Your task to perform on an android device: What's the weather today? Image 0: 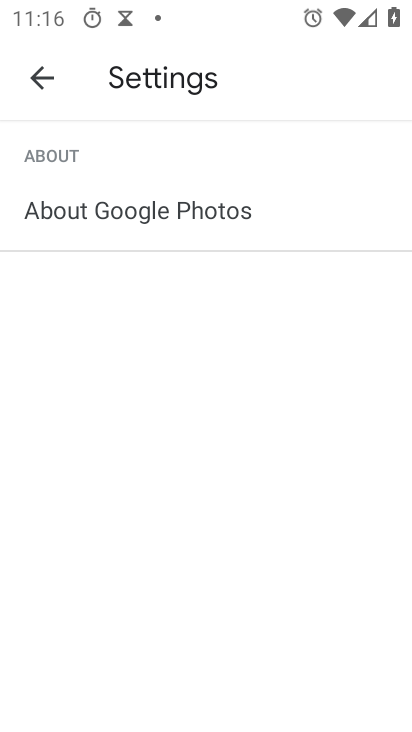
Step 0: click (41, 79)
Your task to perform on an android device: What's the weather today? Image 1: 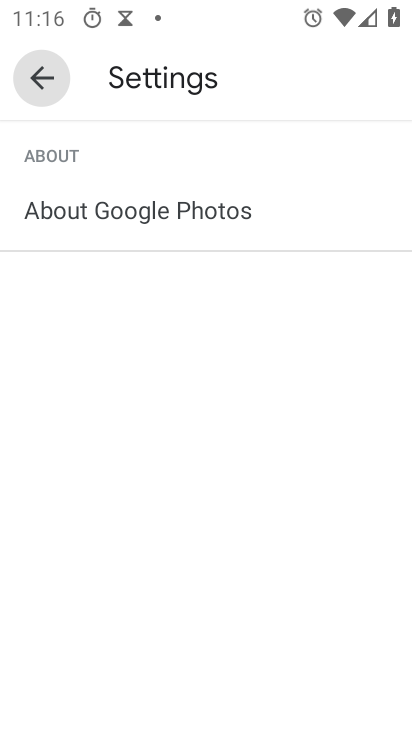
Step 1: click (40, 78)
Your task to perform on an android device: What's the weather today? Image 2: 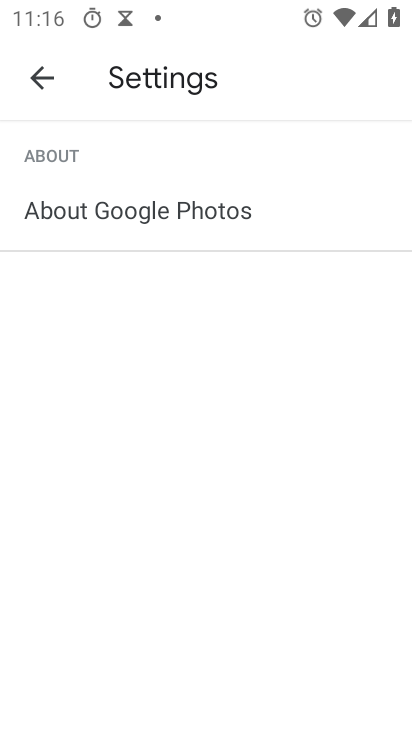
Step 2: click (44, 78)
Your task to perform on an android device: What's the weather today? Image 3: 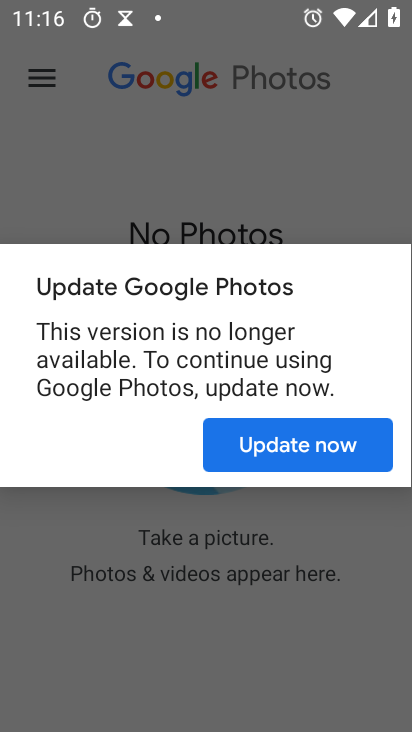
Step 3: click (47, 76)
Your task to perform on an android device: What's the weather today? Image 4: 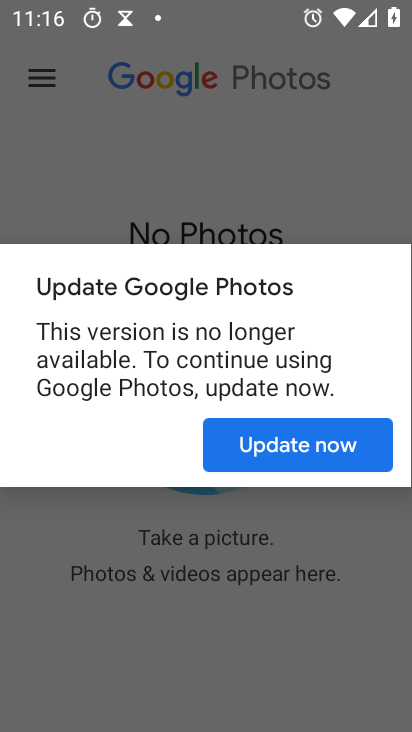
Step 4: press back button
Your task to perform on an android device: What's the weather today? Image 5: 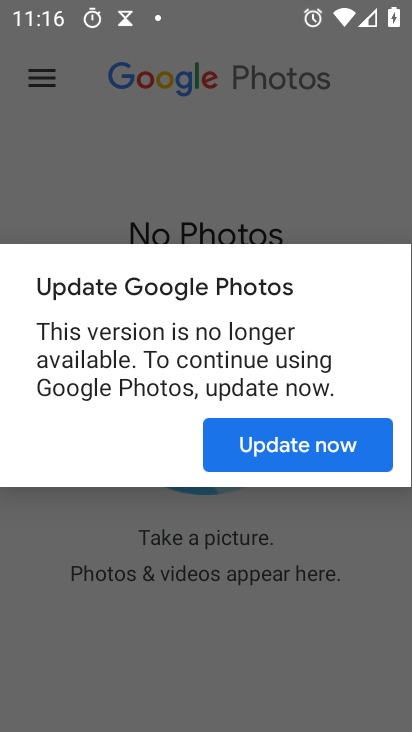
Step 5: press home button
Your task to perform on an android device: What's the weather today? Image 6: 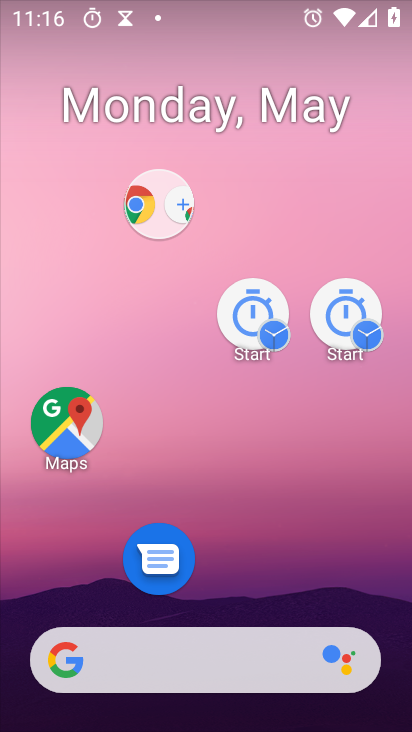
Step 6: drag from (20, 192) to (396, 344)
Your task to perform on an android device: What's the weather today? Image 7: 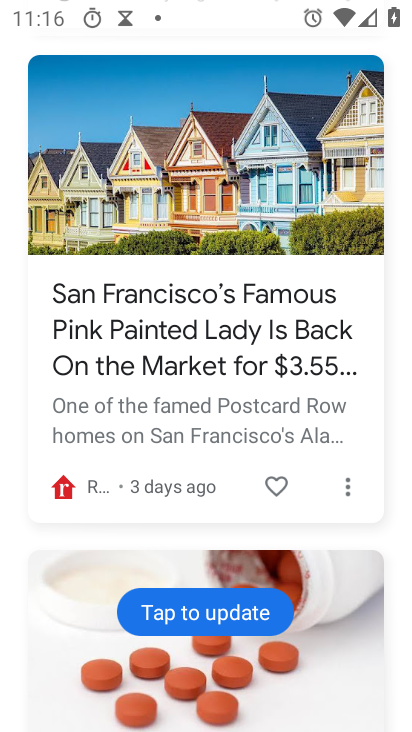
Step 7: drag from (132, 143) to (193, 448)
Your task to perform on an android device: What's the weather today? Image 8: 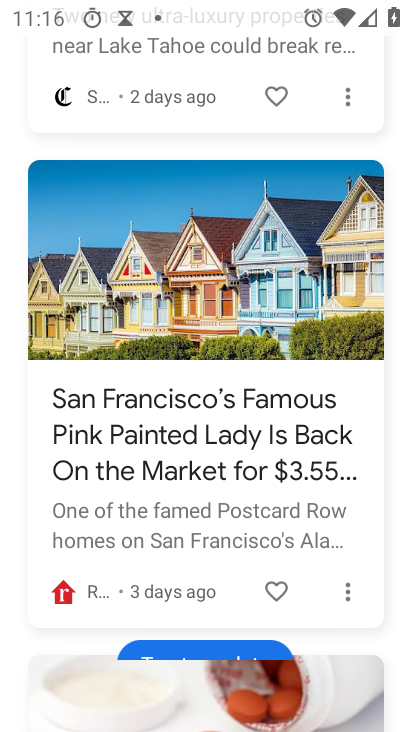
Step 8: drag from (177, 452) to (129, 560)
Your task to perform on an android device: What's the weather today? Image 9: 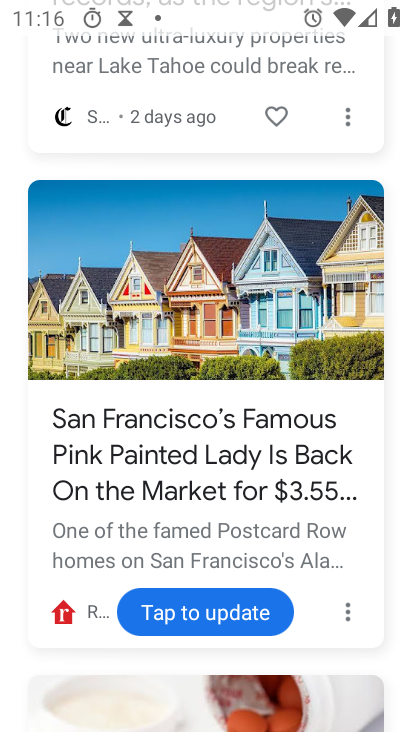
Step 9: drag from (179, 133) to (216, 461)
Your task to perform on an android device: What's the weather today? Image 10: 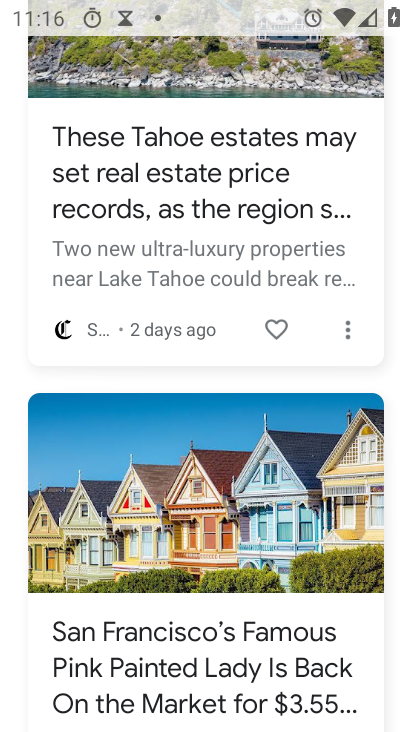
Step 10: drag from (177, 137) to (220, 441)
Your task to perform on an android device: What's the weather today? Image 11: 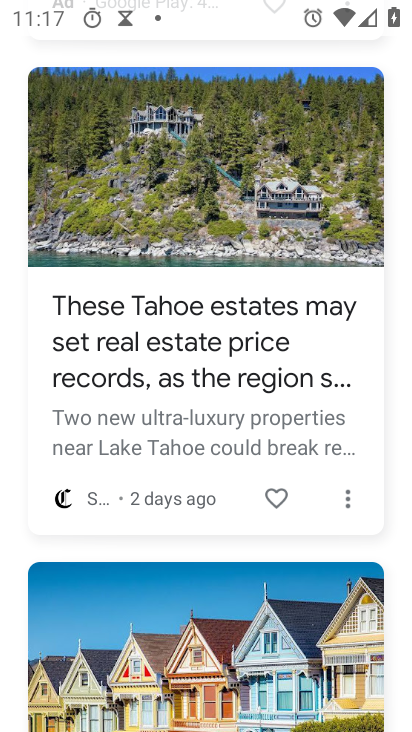
Step 11: drag from (253, 499) to (190, 536)
Your task to perform on an android device: What's the weather today? Image 12: 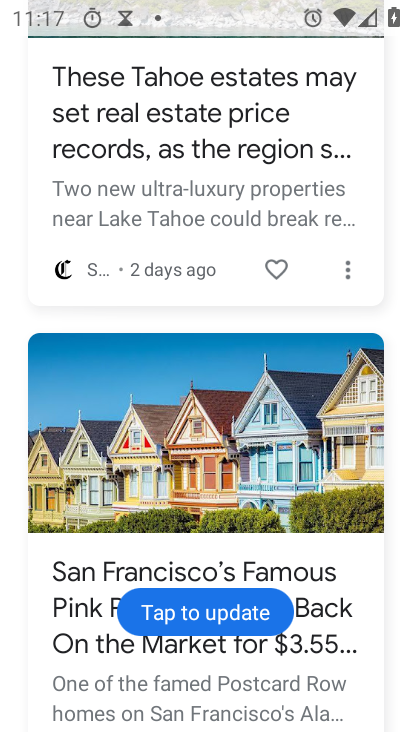
Step 12: drag from (138, 196) to (257, 553)
Your task to perform on an android device: What's the weather today? Image 13: 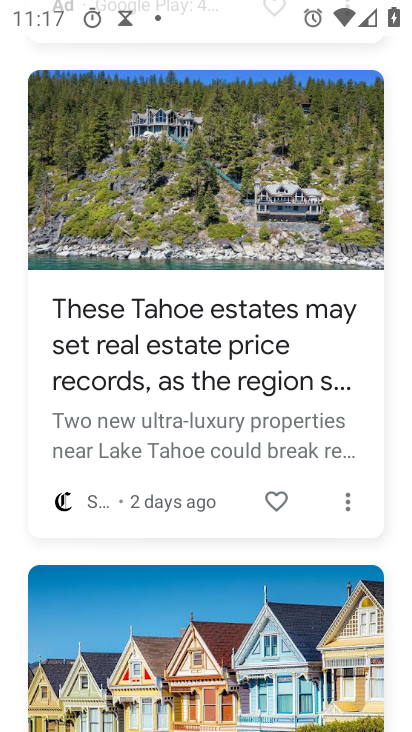
Step 13: drag from (203, 235) to (249, 518)
Your task to perform on an android device: What's the weather today? Image 14: 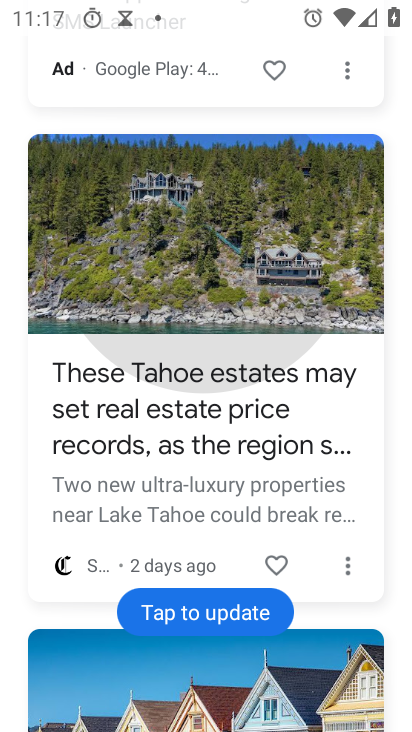
Step 14: drag from (168, 134) to (226, 474)
Your task to perform on an android device: What's the weather today? Image 15: 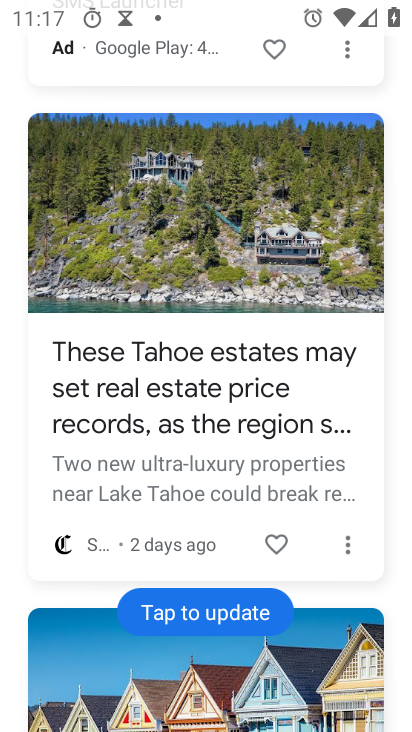
Step 15: drag from (167, 166) to (201, 398)
Your task to perform on an android device: What's the weather today? Image 16: 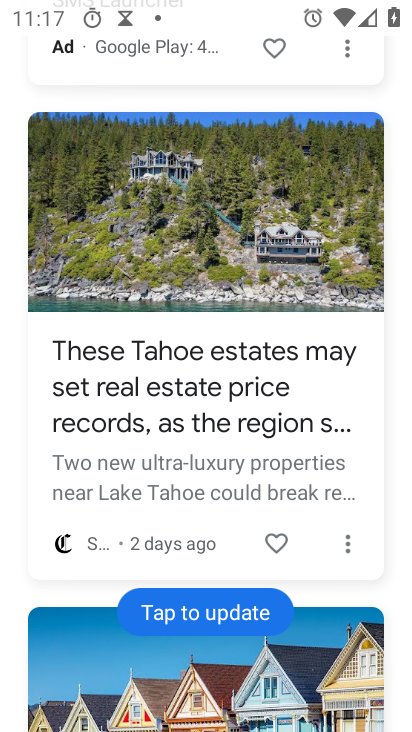
Step 16: click (171, 54)
Your task to perform on an android device: What's the weather today? Image 17: 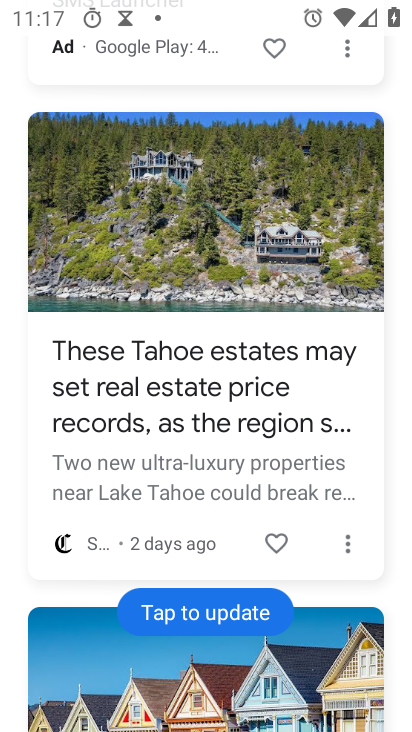
Step 17: click (173, 60)
Your task to perform on an android device: What's the weather today? Image 18: 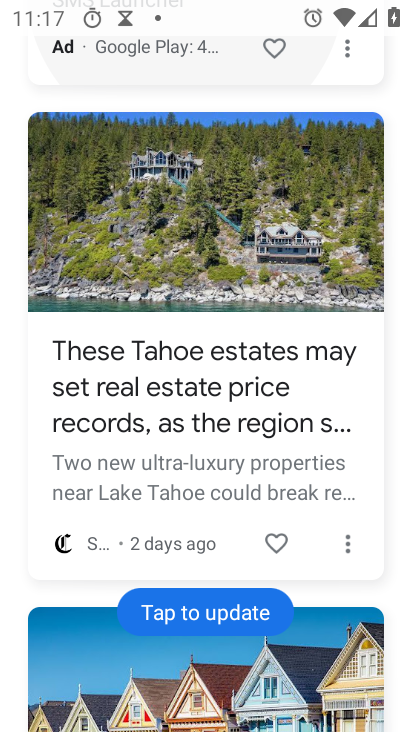
Step 18: drag from (174, 59) to (212, 25)
Your task to perform on an android device: What's the weather today? Image 19: 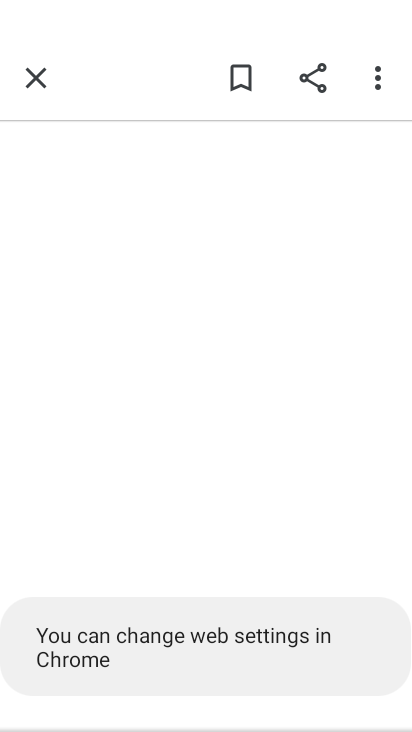
Step 19: click (211, 55)
Your task to perform on an android device: What's the weather today? Image 20: 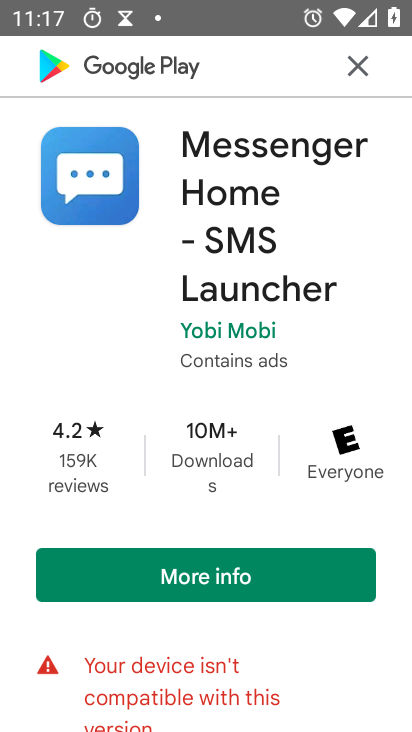
Step 20: click (353, 61)
Your task to perform on an android device: What's the weather today? Image 21: 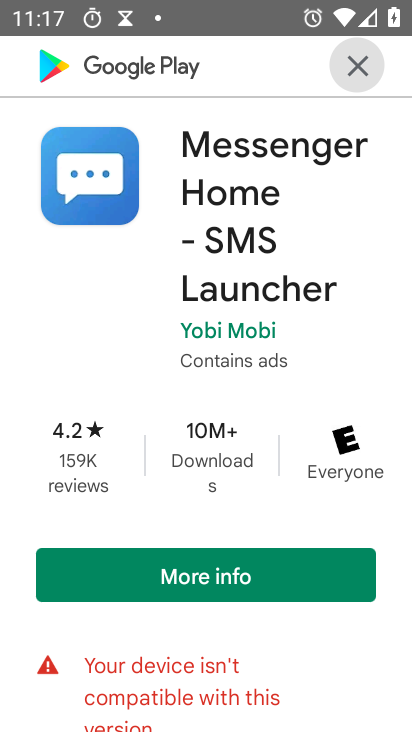
Step 21: click (356, 65)
Your task to perform on an android device: What's the weather today? Image 22: 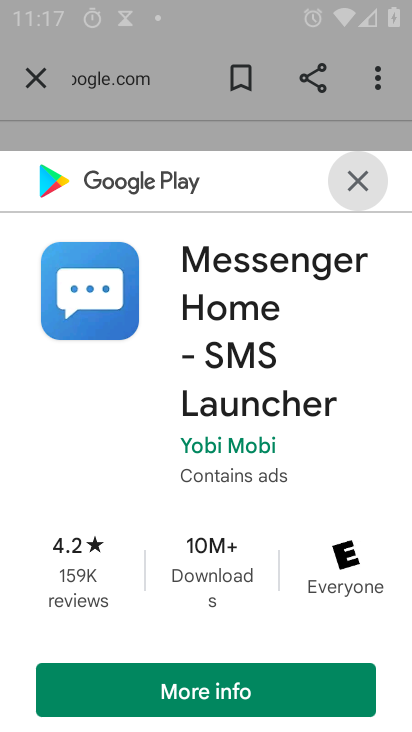
Step 22: click (356, 65)
Your task to perform on an android device: What's the weather today? Image 23: 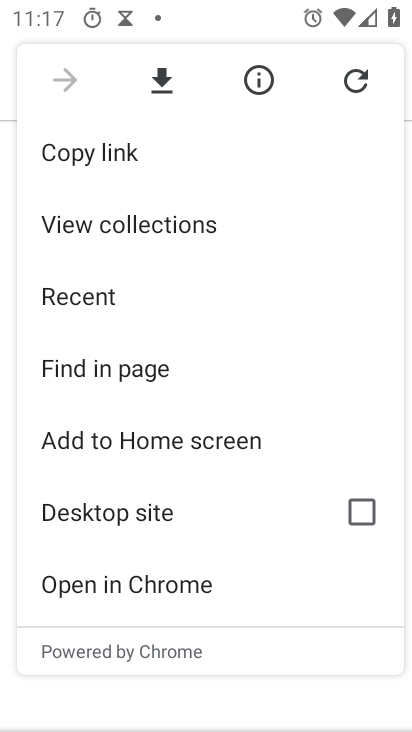
Step 23: click (64, 87)
Your task to perform on an android device: What's the weather today? Image 24: 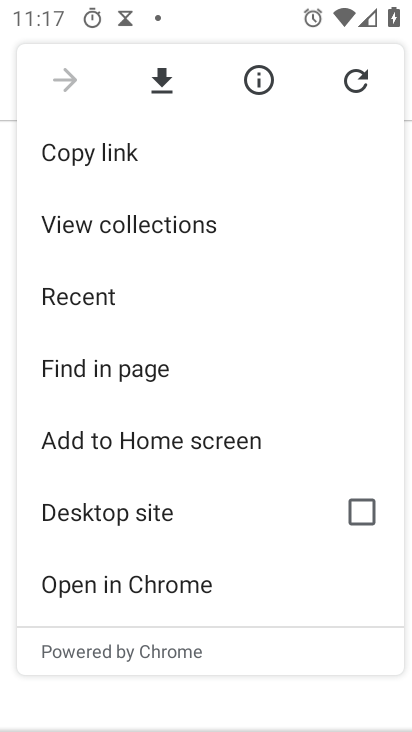
Step 24: click (64, 87)
Your task to perform on an android device: What's the weather today? Image 25: 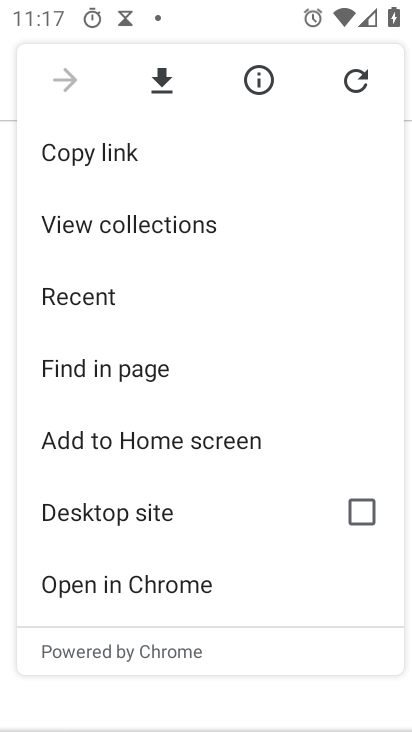
Step 25: click (66, 76)
Your task to perform on an android device: What's the weather today? Image 26: 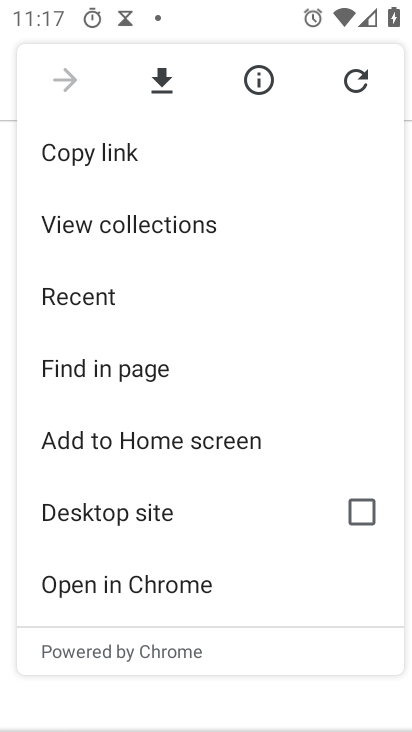
Step 26: press back button
Your task to perform on an android device: What's the weather today? Image 27: 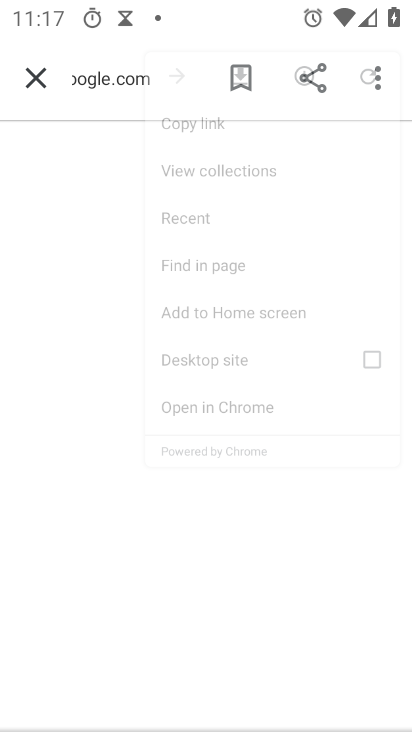
Step 27: press back button
Your task to perform on an android device: What's the weather today? Image 28: 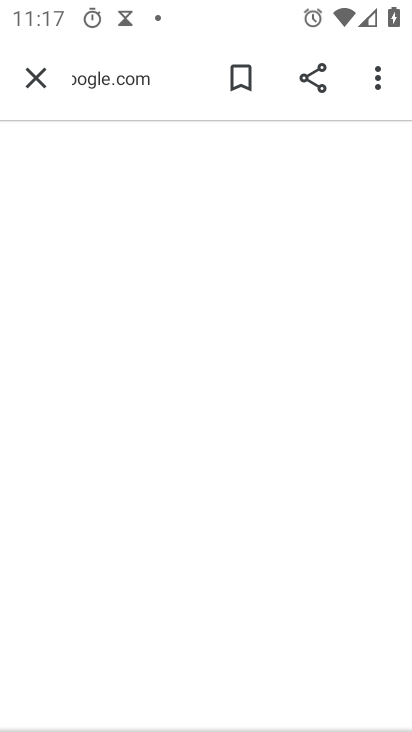
Step 28: press back button
Your task to perform on an android device: What's the weather today? Image 29: 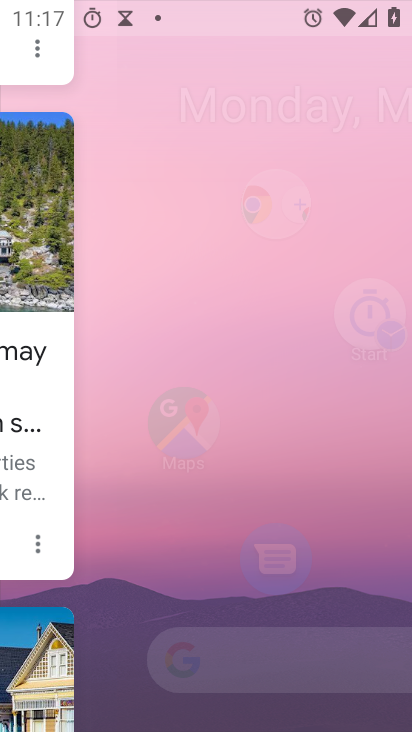
Step 29: press back button
Your task to perform on an android device: What's the weather today? Image 30: 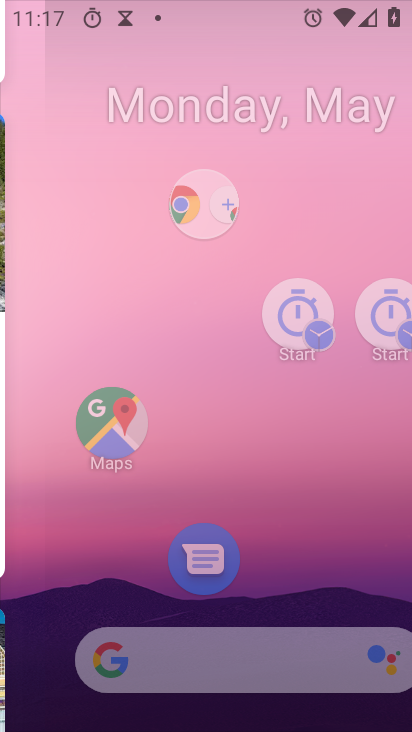
Step 30: click (40, 76)
Your task to perform on an android device: What's the weather today? Image 31: 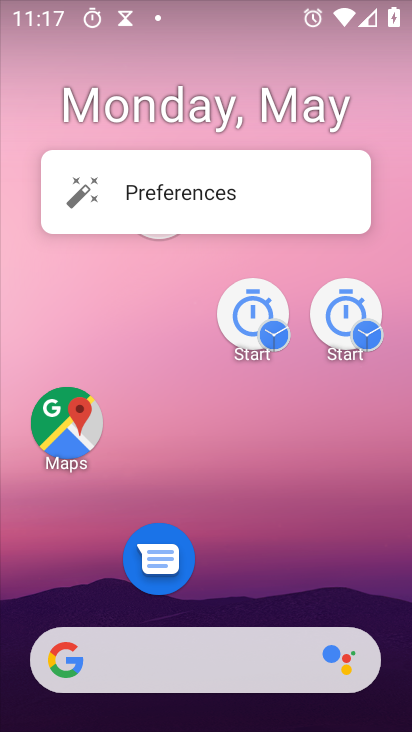
Step 31: drag from (251, 618) to (64, 0)
Your task to perform on an android device: What's the weather today? Image 32: 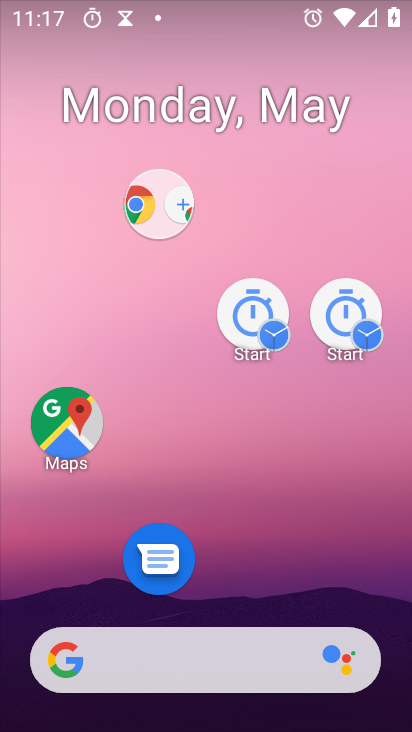
Step 32: drag from (264, 514) to (138, 27)
Your task to perform on an android device: What's the weather today? Image 33: 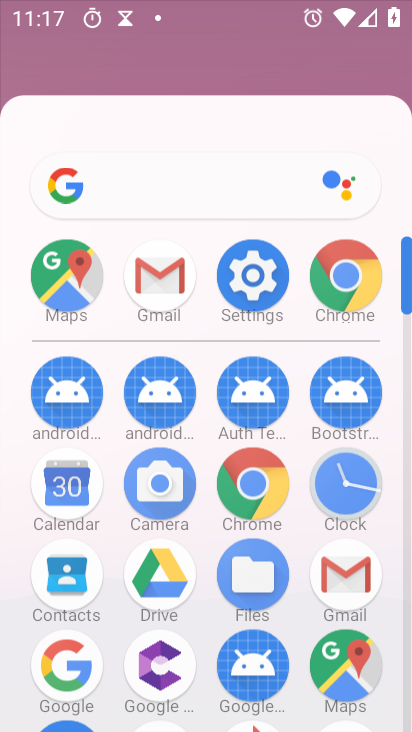
Step 33: drag from (224, 519) to (142, 26)
Your task to perform on an android device: What's the weather today? Image 34: 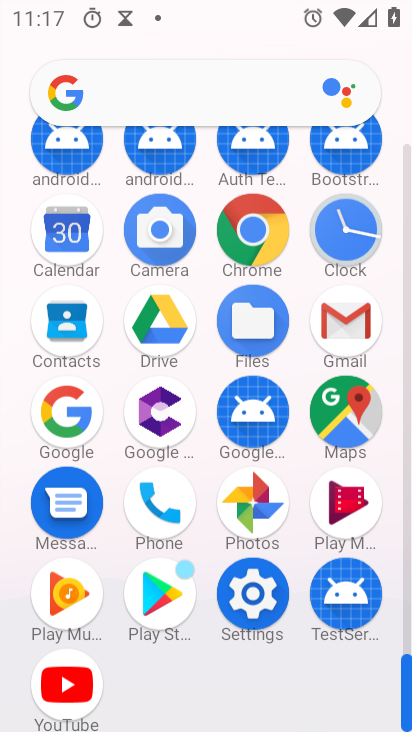
Step 34: drag from (200, 328) to (128, 54)
Your task to perform on an android device: What's the weather today? Image 35: 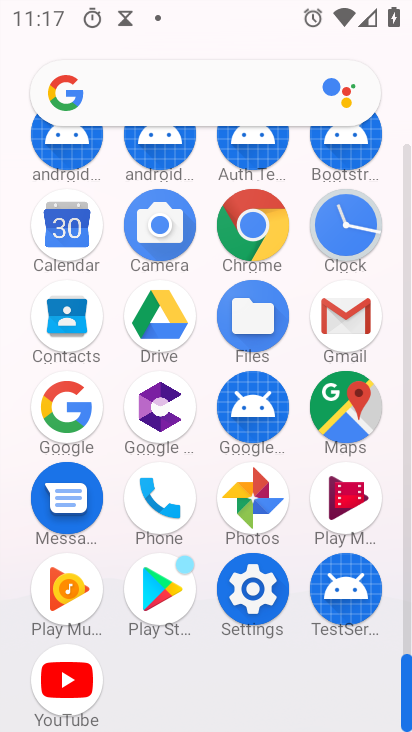
Step 35: press back button
Your task to perform on an android device: What's the weather today? Image 36: 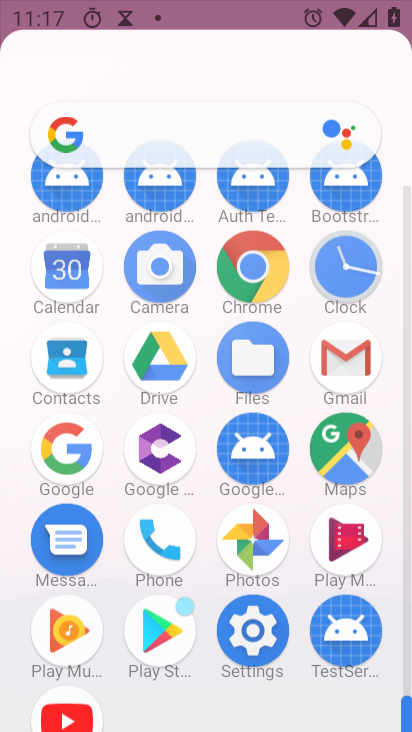
Step 36: press back button
Your task to perform on an android device: What's the weather today? Image 37: 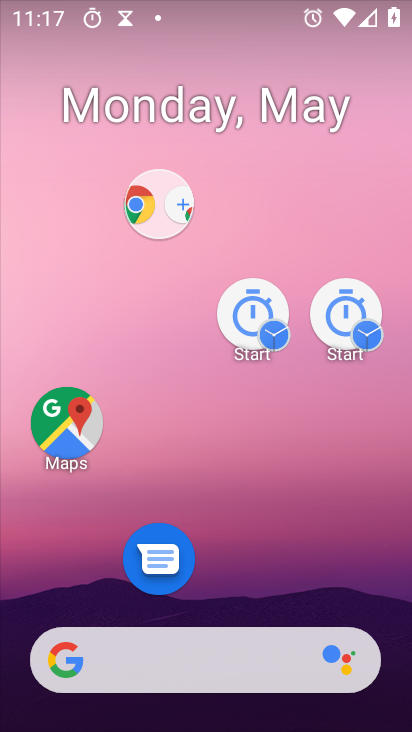
Step 37: press back button
Your task to perform on an android device: What's the weather today? Image 38: 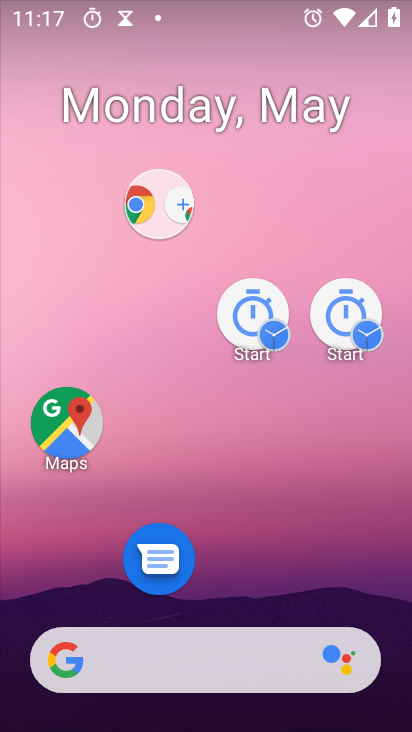
Step 38: drag from (3, 194) to (263, 327)
Your task to perform on an android device: What's the weather today? Image 39: 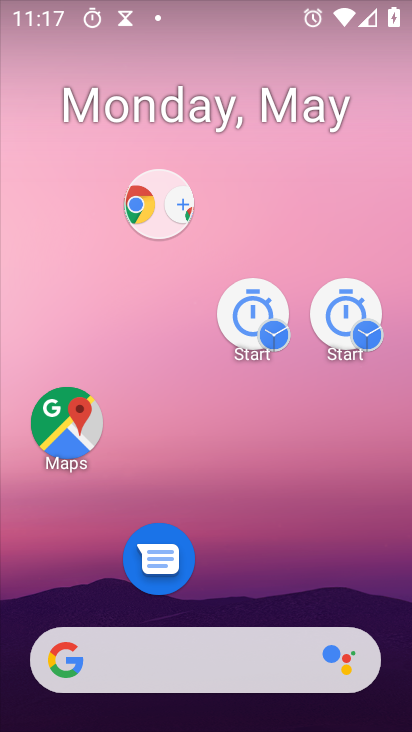
Step 39: drag from (8, 170) to (297, 303)
Your task to perform on an android device: What's the weather today? Image 40: 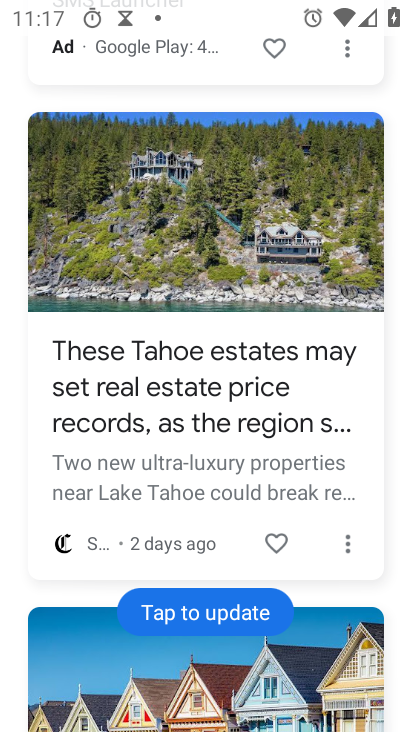
Step 40: drag from (8, 137) to (400, 352)
Your task to perform on an android device: What's the weather today? Image 41: 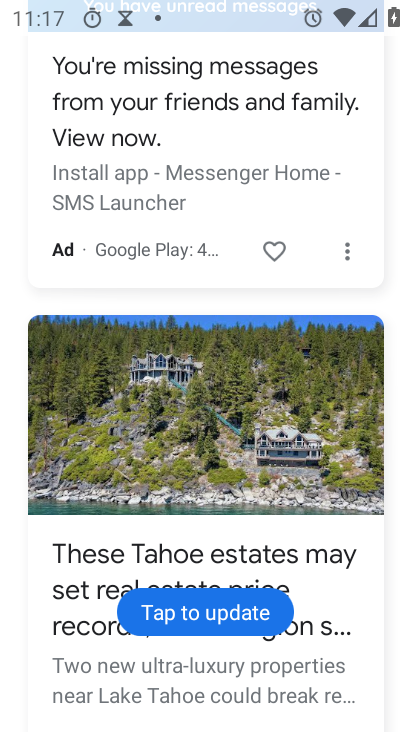
Step 41: drag from (26, 159) to (403, 431)
Your task to perform on an android device: What's the weather today? Image 42: 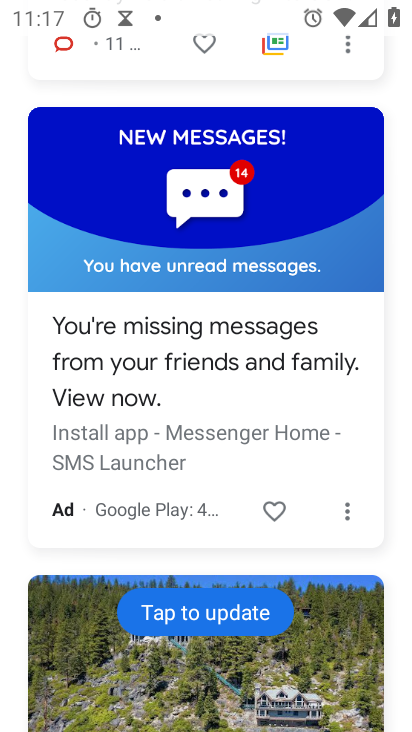
Step 42: drag from (249, 290) to (245, 387)
Your task to perform on an android device: What's the weather today? Image 43: 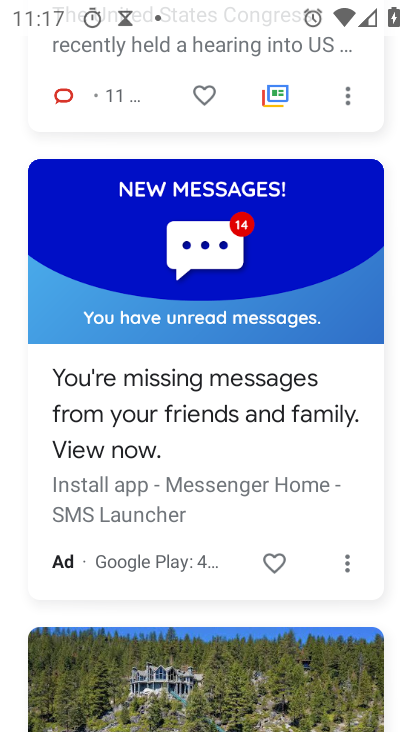
Step 43: drag from (164, 132) to (156, 499)
Your task to perform on an android device: What's the weather today? Image 44: 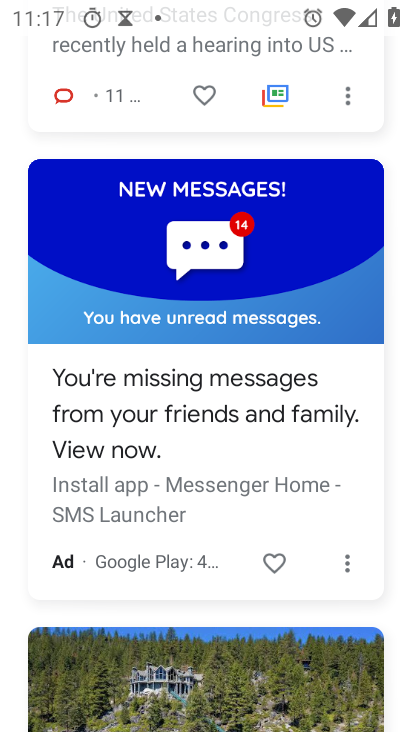
Step 44: click (110, 608)
Your task to perform on an android device: What's the weather today? Image 45: 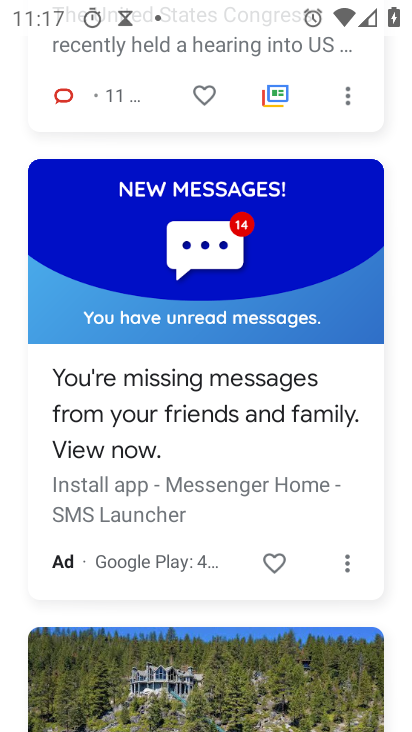
Step 45: task complete